Your task to perform on an android device: install app "DoorDash - Food Delivery" Image 0: 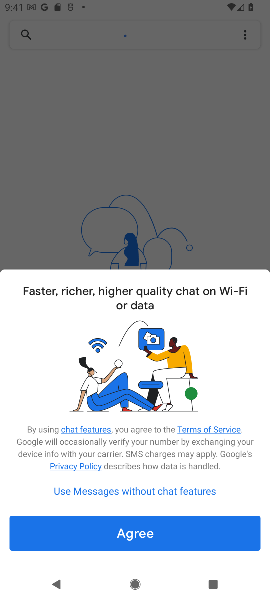
Step 0: press home button
Your task to perform on an android device: install app "DoorDash - Food Delivery" Image 1: 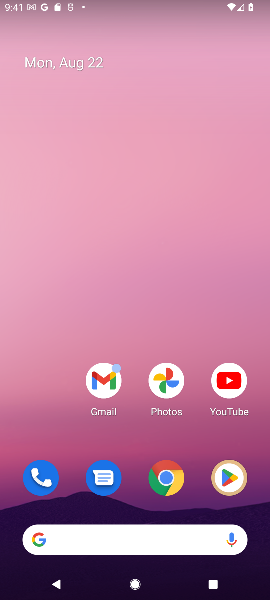
Step 1: click (219, 473)
Your task to perform on an android device: install app "DoorDash - Food Delivery" Image 2: 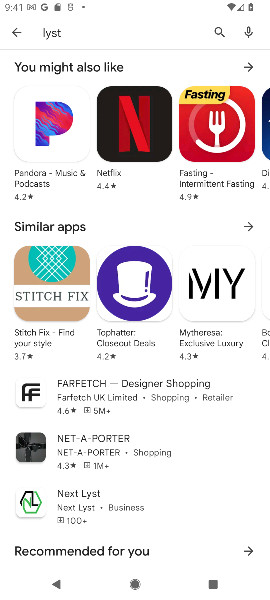
Step 2: click (222, 26)
Your task to perform on an android device: install app "DoorDash - Food Delivery" Image 3: 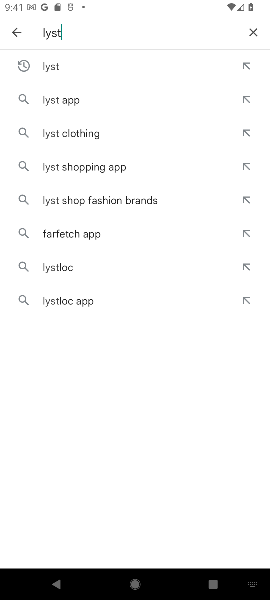
Step 3: click (247, 30)
Your task to perform on an android device: install app "DoorDash - Food Delivery" Image 4: 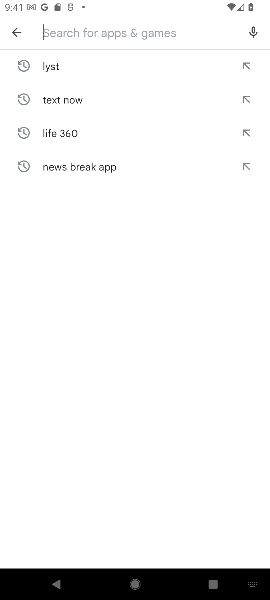
Step 4: type "door dash"
Your task to perform on an android device: install app "DoorDash - Food Delivery" Image 5: 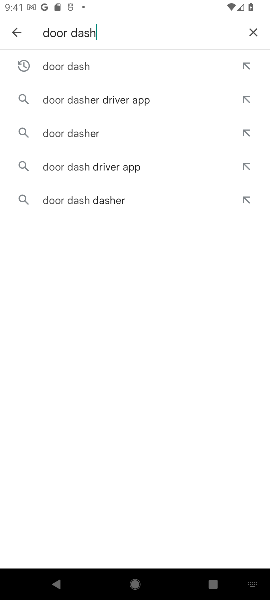
Step 5: click (85, 57)
Your task to perform on an android device: install app "DoorDash - Food Delivery" Image 6: 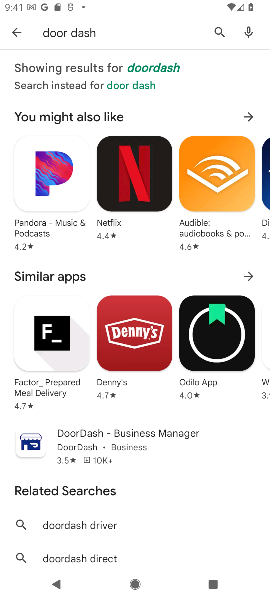
Step 6: task complete